Your task to perform on an android device: turn on translation in the chrome app Image 0: 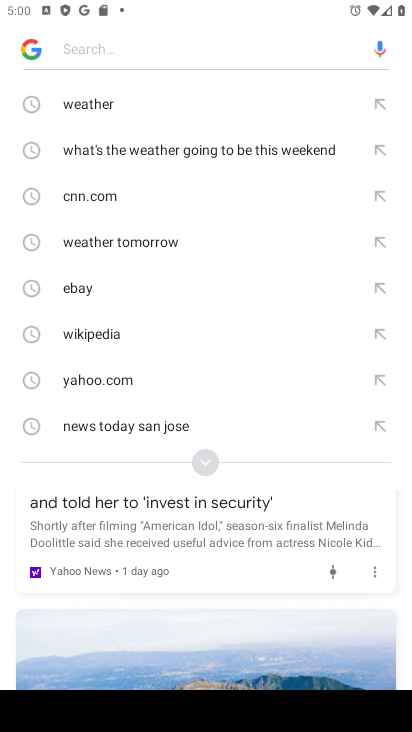
Step 0: press home button
Your task to perform on an android device: turn on translation in the chrome app Image 1: 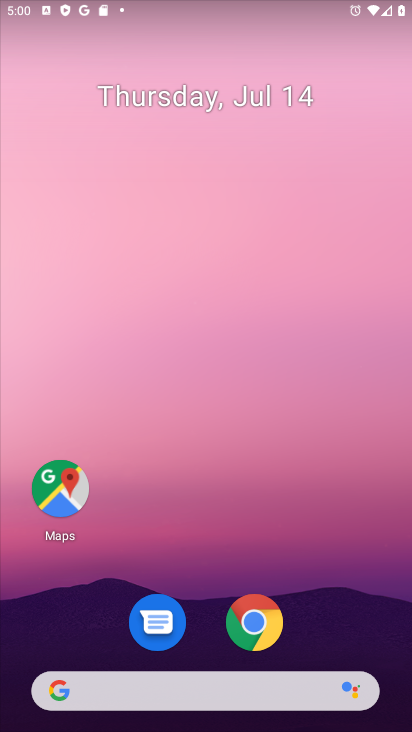
Step 1: click (268, 605)
Your task to perform on an android device: turn on translation in the chrome app Image 2: 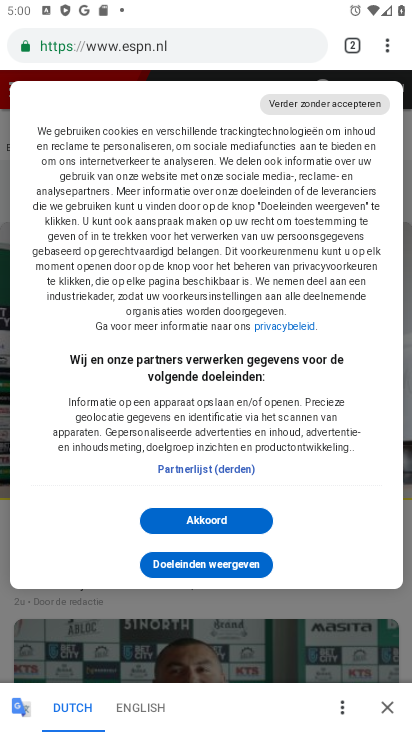
Step 2: click (391, 56)
Your task to perform on an android device: turn on translation in the chrome app Image 3: 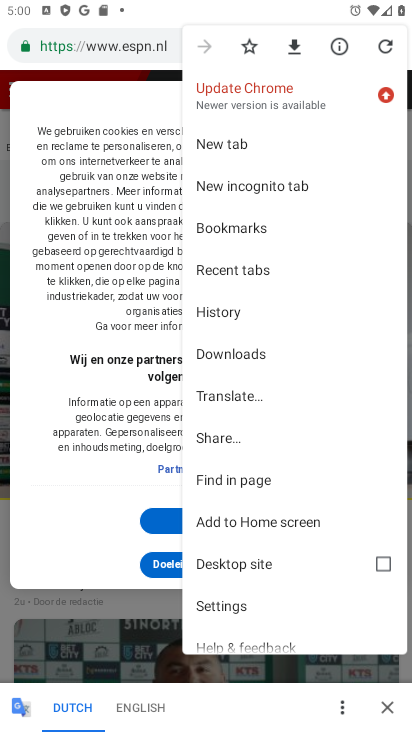
Step 3: click (244, 605)
Your task to perform on an android device: turn on translation in the chrome app Image 4: 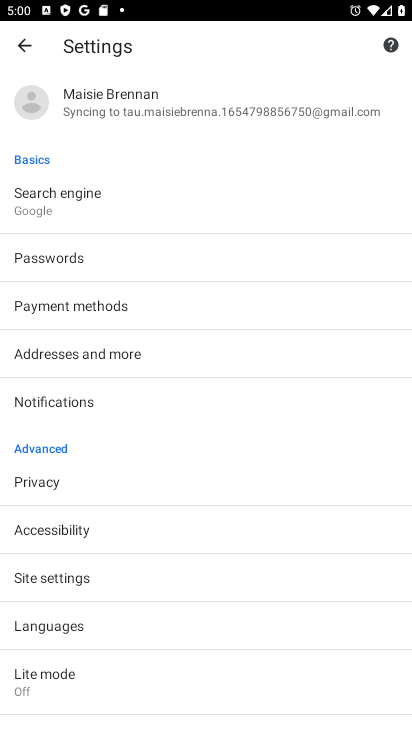
Step 4: click (152, 626)
Your task to perform on an android device: turn on translation in the chrome app Image 5: 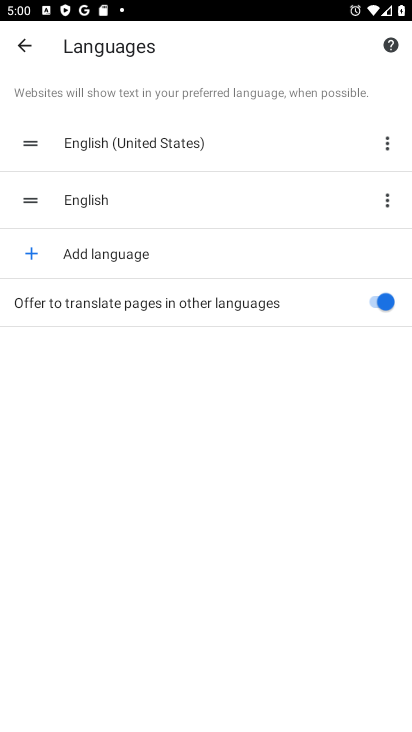
Step 5: task complete